Your task to perform on an android device: Open Youtube and go to "Your channel" Image 0: 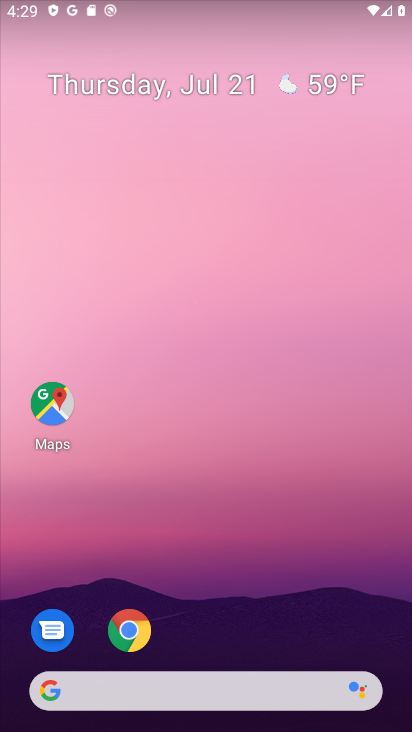
Step 0: drag from (217, 642) to (138, 224)
Your task to perform on an android device: Open Youtube and go to "Your channel" Image 1: 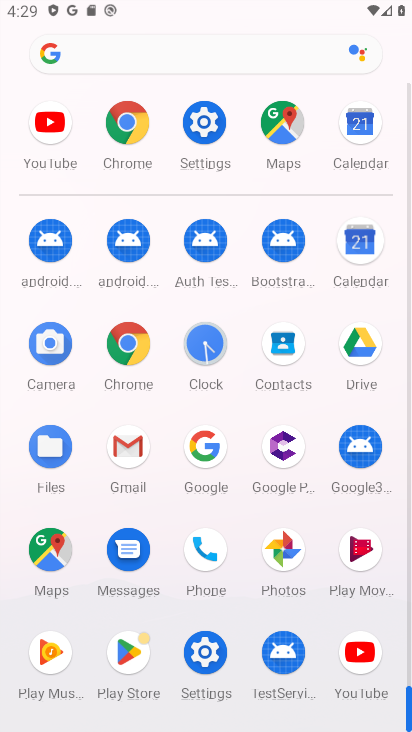
Step 1: click (351, 646)
Your task to perform on an android device: Open Youtube and go to "Your channel" Image 2: 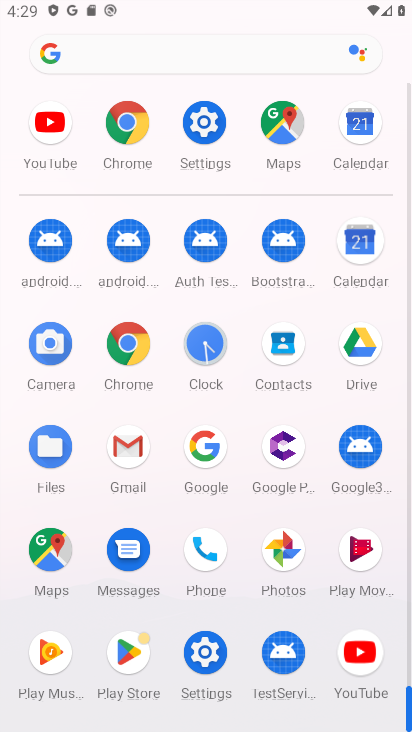
Step 2: click (352, 647)
Your task to perform on an android device: Open Youtube and go to "Your channel" Image 3: 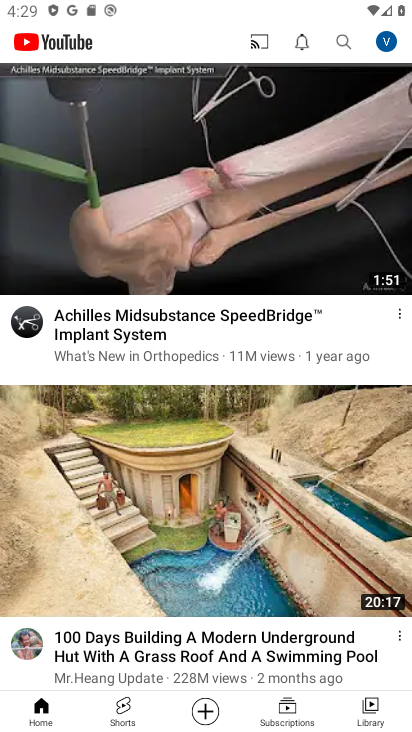
Step 3: task complete